Your task to perform on an android device: toggle priority inbox in the gmail app Image 0: 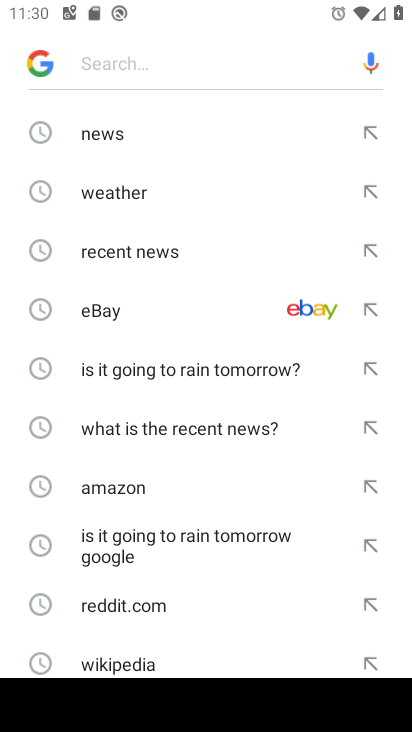
Step 0: press home button
Your task to perform on an android device: toggle priority inbox in the gmail app Image 1: 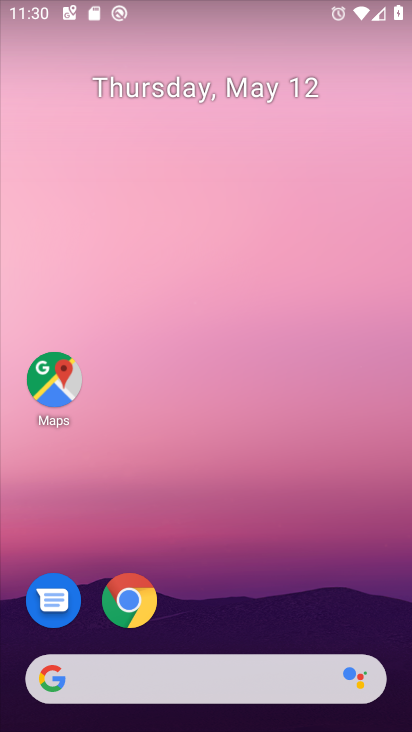
Step 1: drag from (199, 606) to (114, 220)
Your task to perform on an android device: toggle priority inbox in the gmail app Image 2: 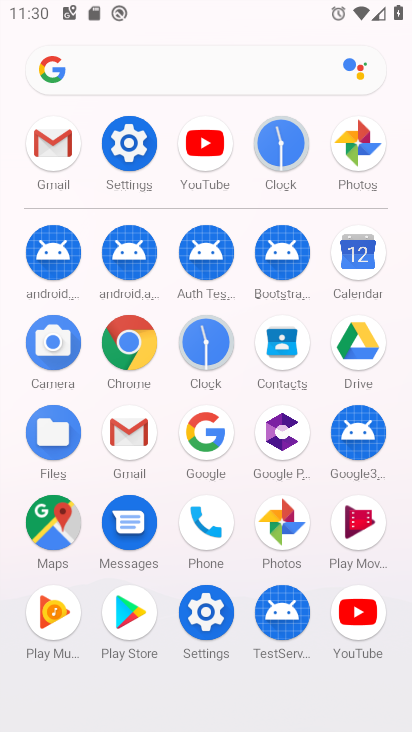
Step 2: click (122, 451)
Your task to perform on an android device: toggle priority inbox in the gmail app Image 3: 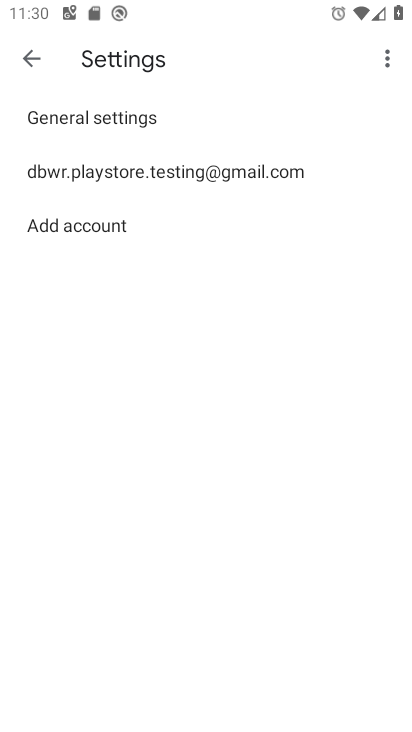
Step 3: click (132, 167)
Your task to perform on an android device: toggle priority inbox in the gmail app Image 4: 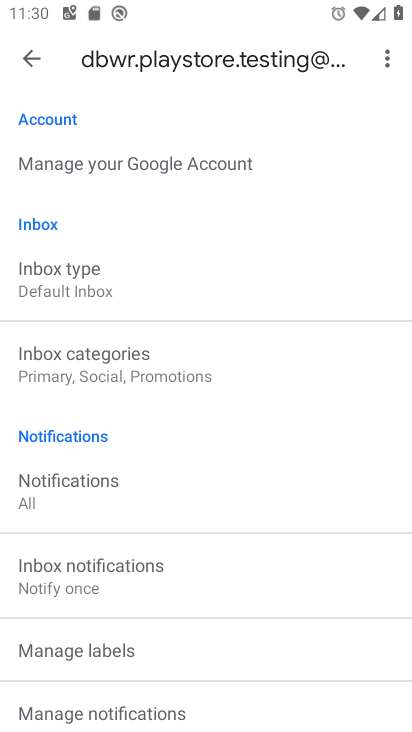
Step 4: click (58, 305)
Your task to perform on an android device: toggle priority inbox in the gmail app Image 5: 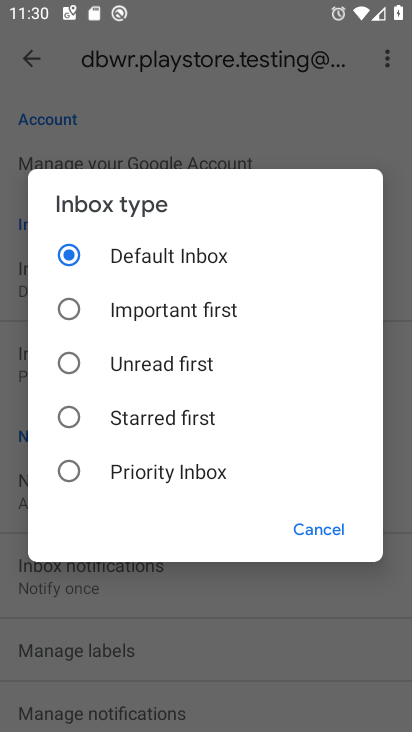
Step 5: click (66, 474)
Your task to perform on an android device: toggle priority inbox in the gmail app Image 6: 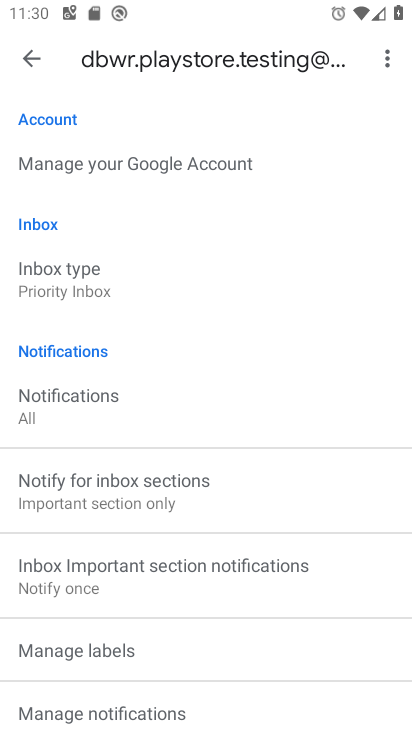
Step 6: task complete